Your task to perform on an android device: manage bookmarks in the chrome app Image 0: 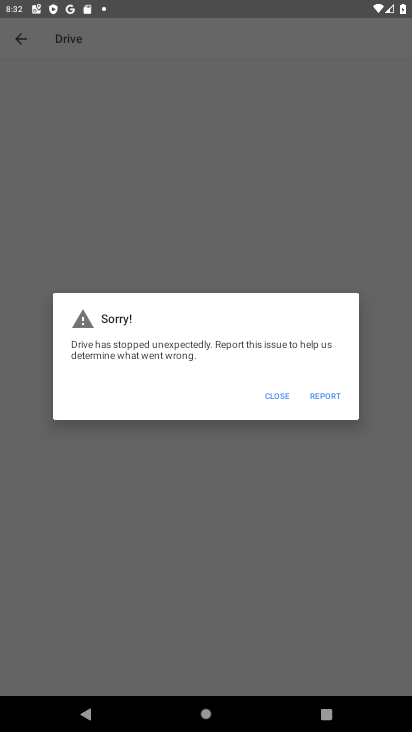
Step 0: press home button
Your task to perform on an android device: manage bookmarks in the chrome app Image 1: 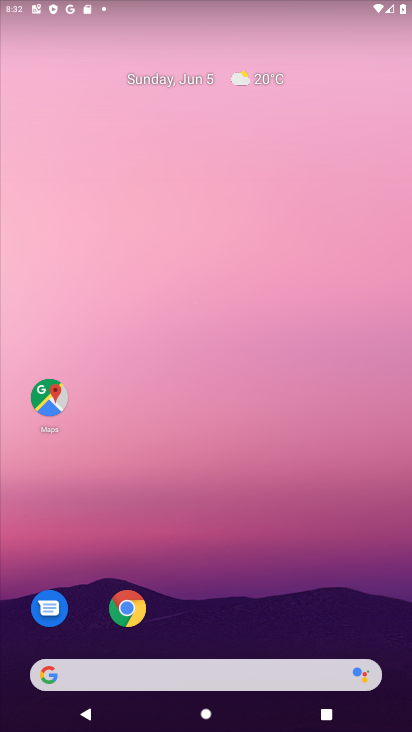
Step 1: click (128, 614)
Your task to perform on an android device: manage bookmarks in the chrome app Image 2: 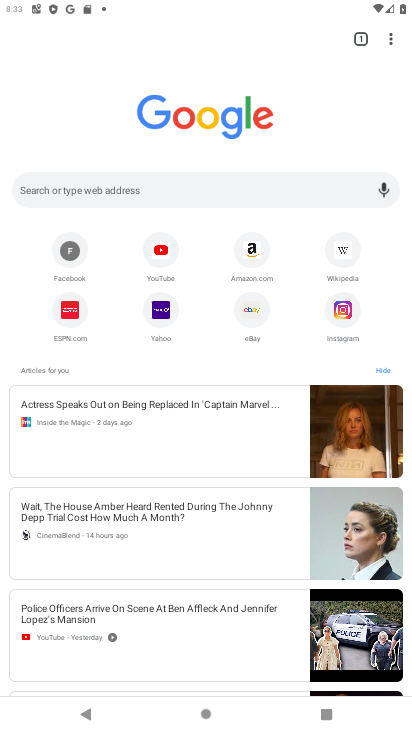
Step 2: click (391, 40)
Your task to perform on an android device: manage bookmarks in the chrome app Image 3: 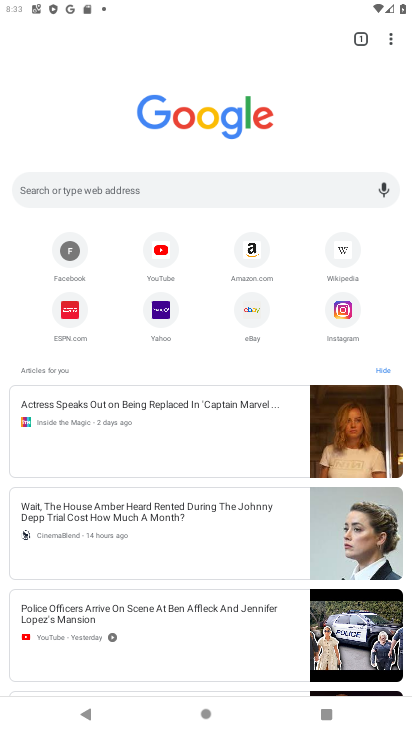
Step 3: click (390, 38)
Your task to perform on an android device: manage bookmarks in the chrome app Image 4: 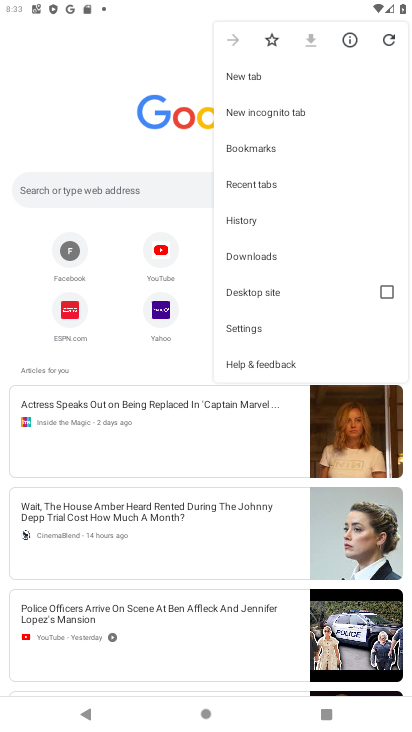
Step 4: click (276, 157)
Your task to perform on an android device: manage bookmarks in the chrome app Image 5: 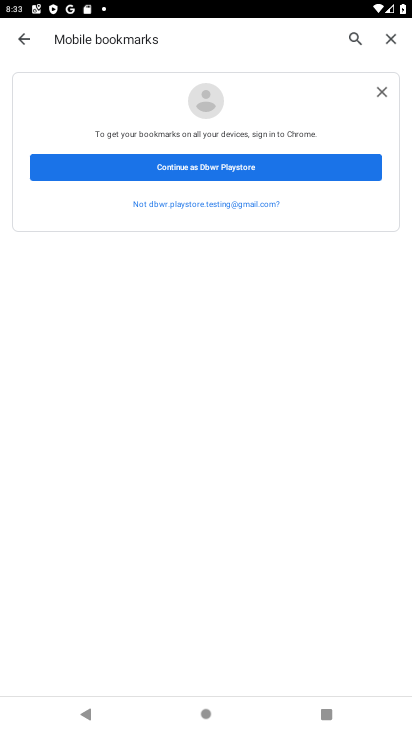
Step 5: click (379, 94)
Your task to perform on an android device: manage bookmarks in the chrome app Image 6: 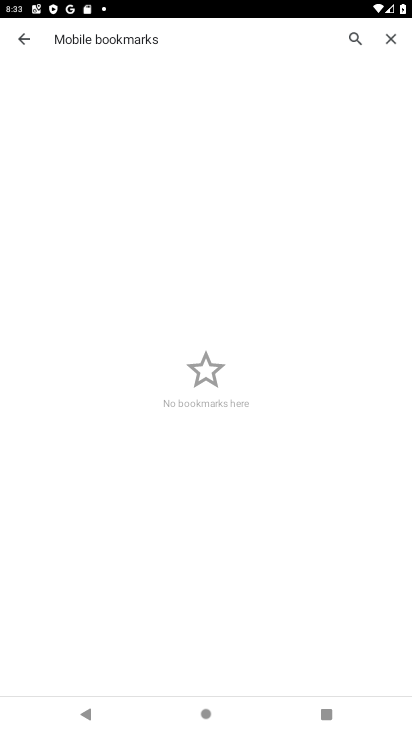
Step 6: task complete